Your task to perform on an android device: remove spam from my inbox in the gmail app Image 0: 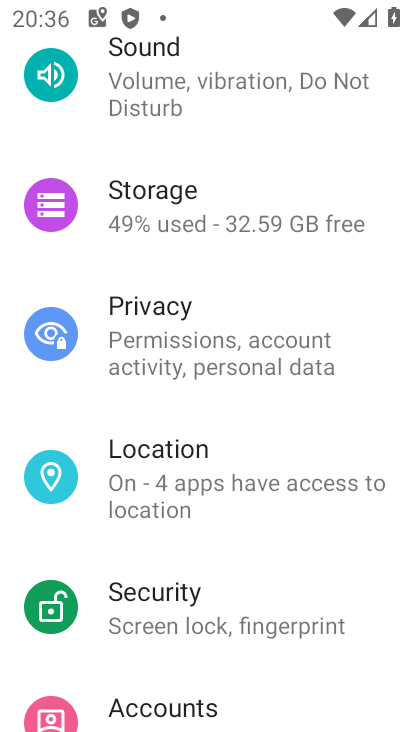
Step 0: press home button
Your task to perform on an android device: remove spam from my inbox in the gmail app Image 1: 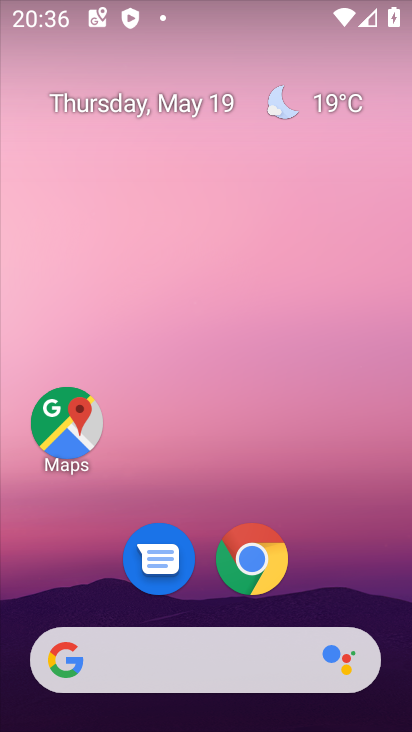
Step 1: drag from (187, 695) to (205, 213)
Your task to perform on an android device: remove spam from my inbox in the gmail app Image 2: 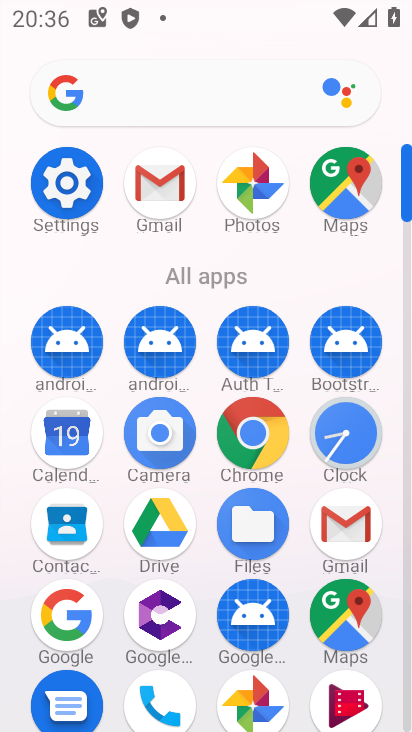
Step 2: click (160, 190)
Your task to perform on an android device: remove spam from my inbox in the gmail app Image 3: 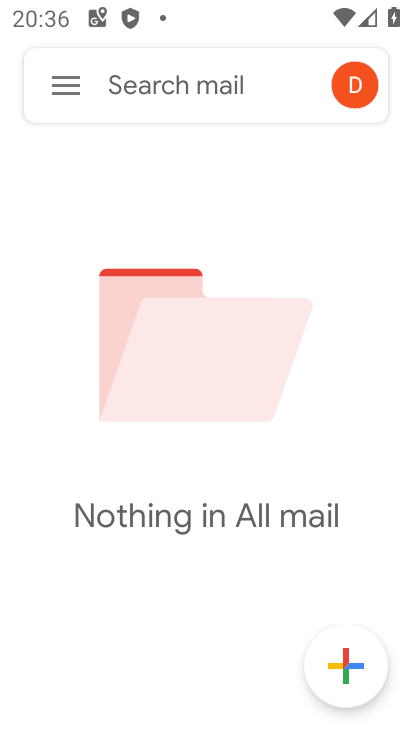
Step 3: click (63, 73)
Your task to perform on an android device: remove spam from my inbox in the gmail app Image 4: 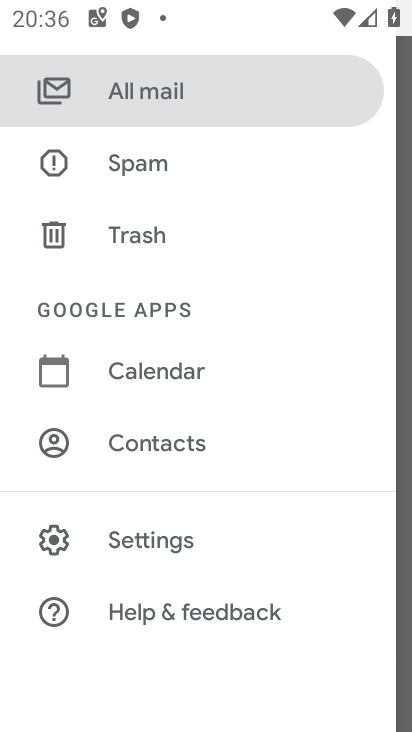
Step 4: click (117, 171)
Your task to perform on an android device: remove spam from my inbox in the gmail app Image 5: 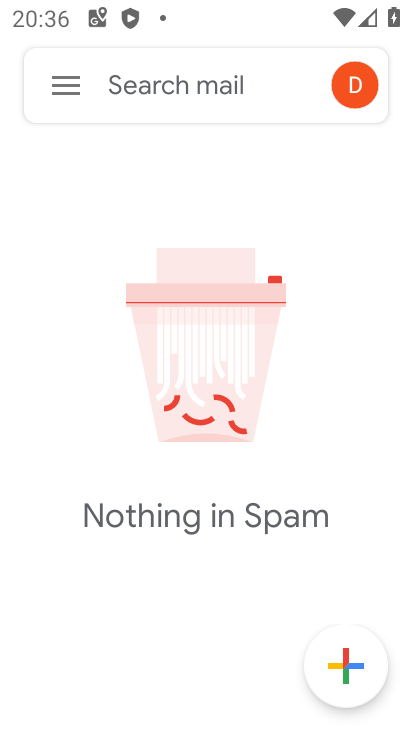
Step 5: task complete